Your task to perform on an android device: snooze an email in the gmail app Image 0: 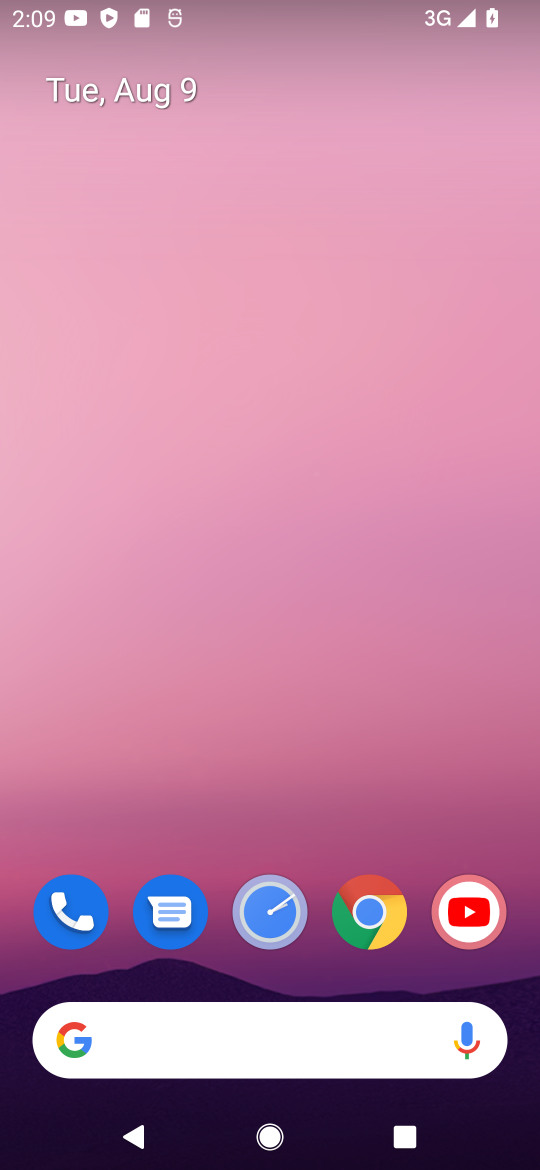
Step 0: drag from (324, 782) to (196, 130)
Your task to perform on an android device: snooze an email in the gmail app Image 1: 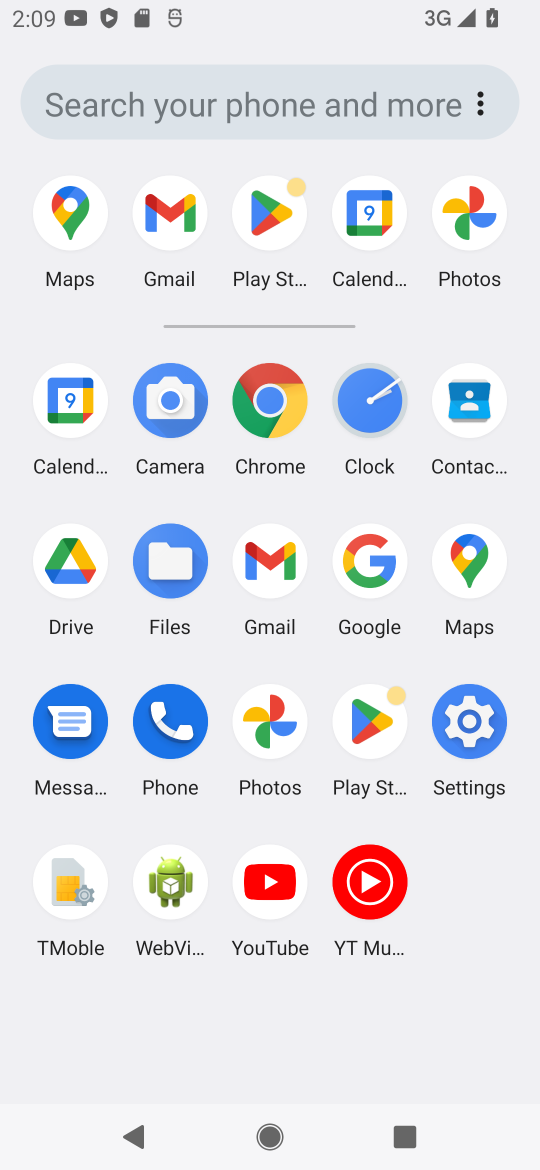
Step 1: click (270, 560)
Your task to perform on an android device: snooze an email in the gmail app Image 2: 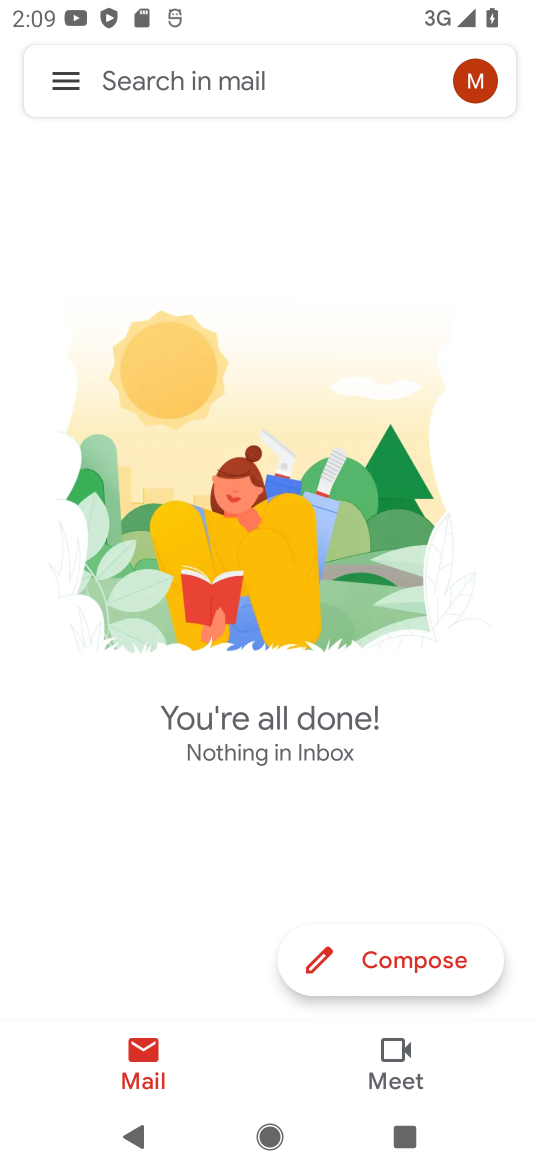
Step 2: click (63, 69)
Your task to perform on an android device: snooze an email in the gmail app Image 3: 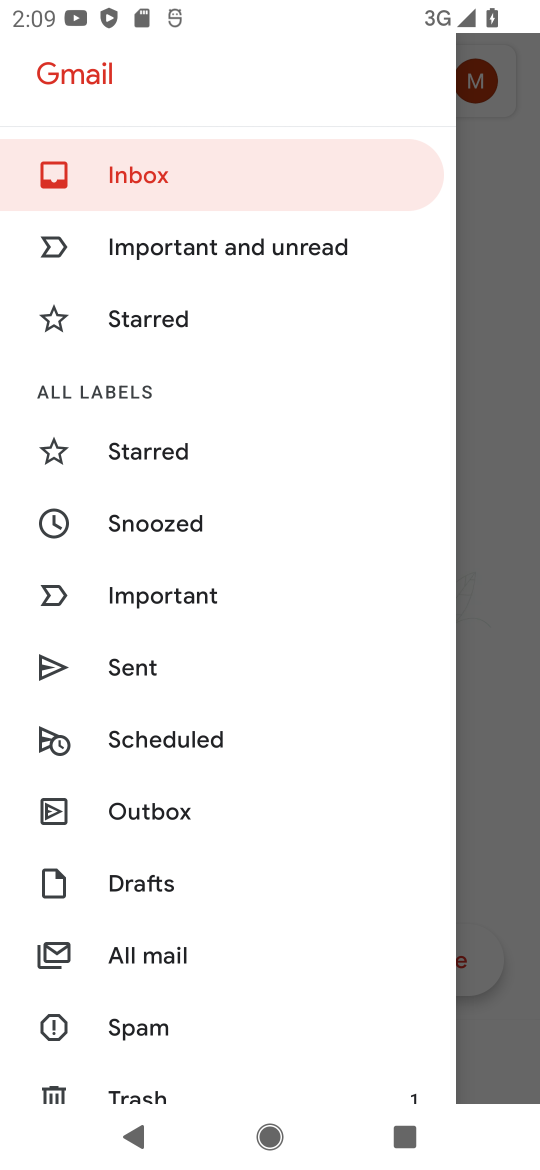
Step 3: drag from (243, 885) to (194, 401)
Your task to perform on an android device: snooze an email in the gmail app Image 4: 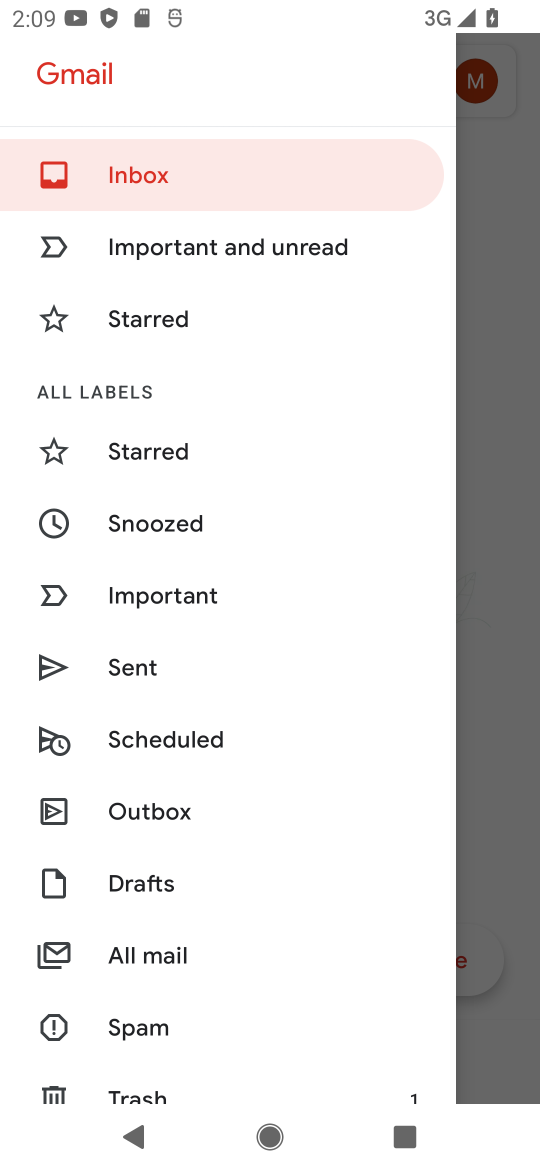
Step 4: drag from (238, 938) to (225, 489)
Your task to perform on an android device: snooze an email in the gmail app Image 5: 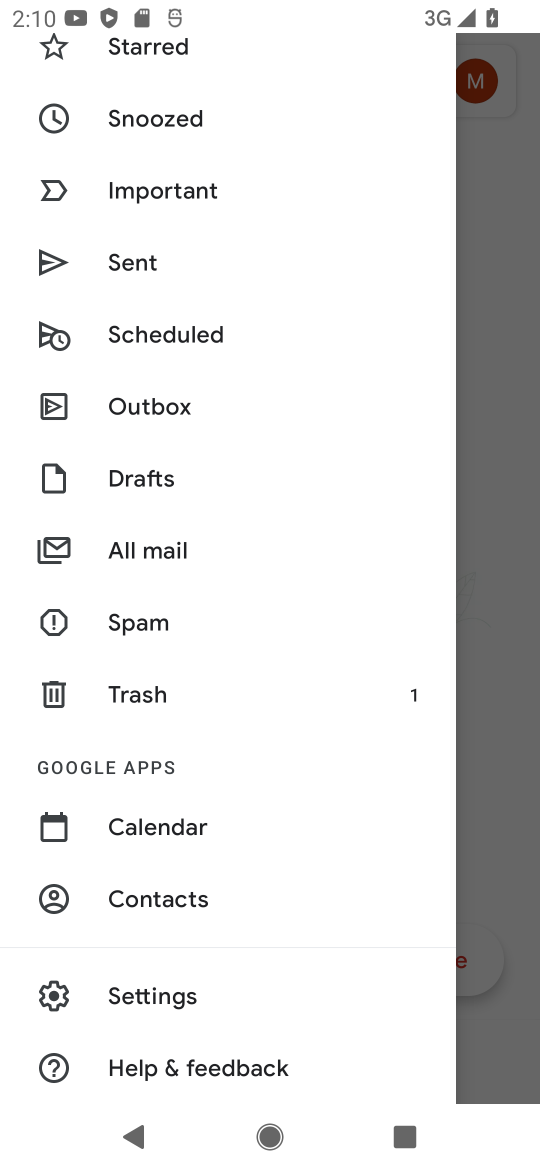
Step 5: click (150, 112)
Your task to perform on an android device: snooze an email in the gmail app Image 6: 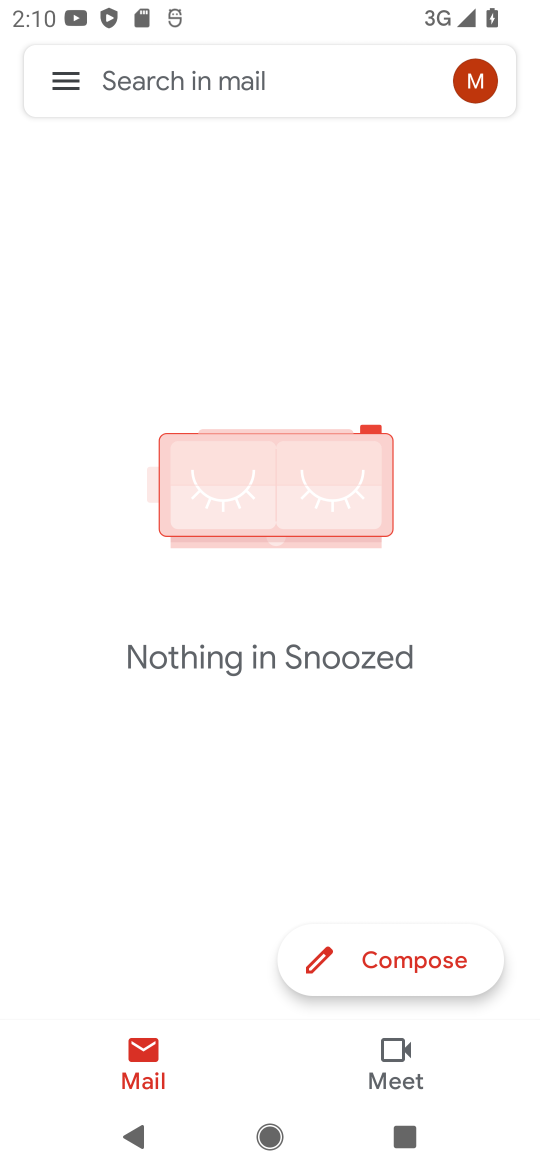
Step 6: click (55, 80)
Your task to perform on an android device: snooze an email in the gmail app Image 7: 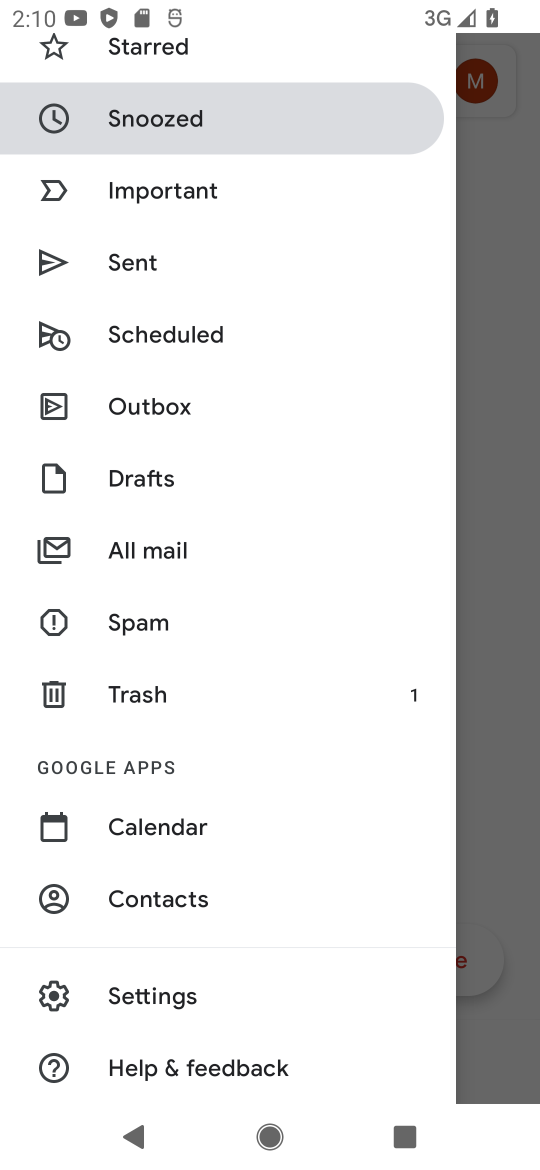
Step 7: click (143, 550)
Your task to perform on an android device: snooze an email in the gmail app Image 8: 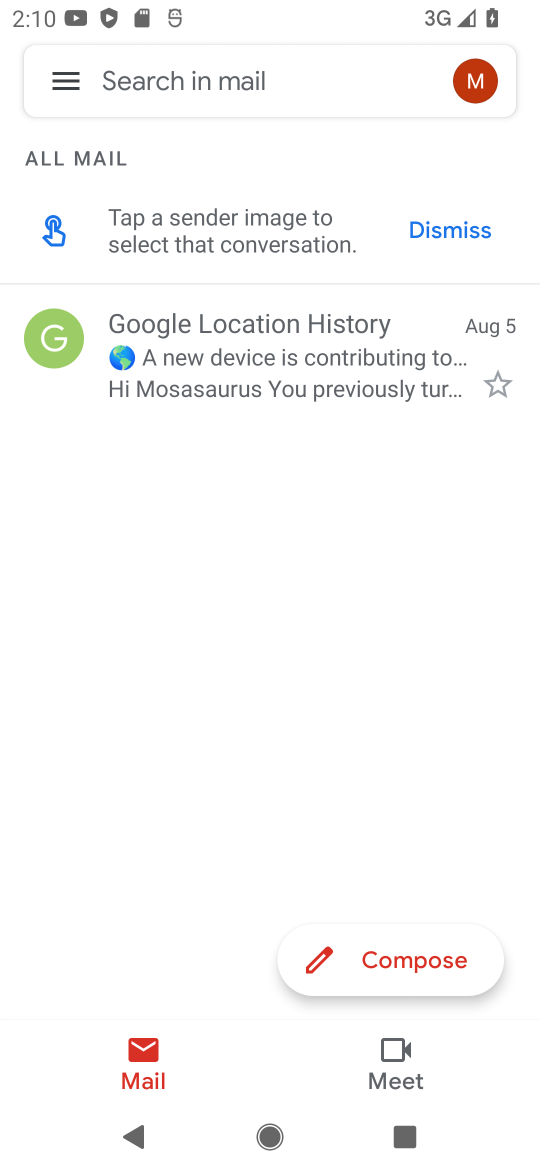
Step 8: click (260, 314)
Your task to perform on an android device: snooze an email in the gmail app Image 9: 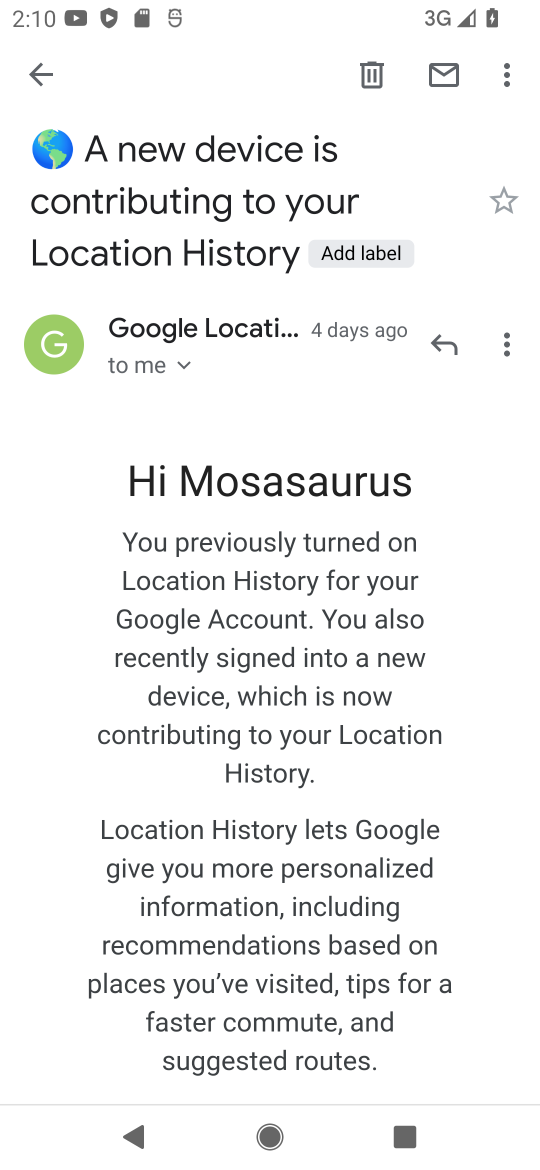
Step 9: click (506, 71)
Your task to perform on an android device: snooze an email in the gmail app Image 10: 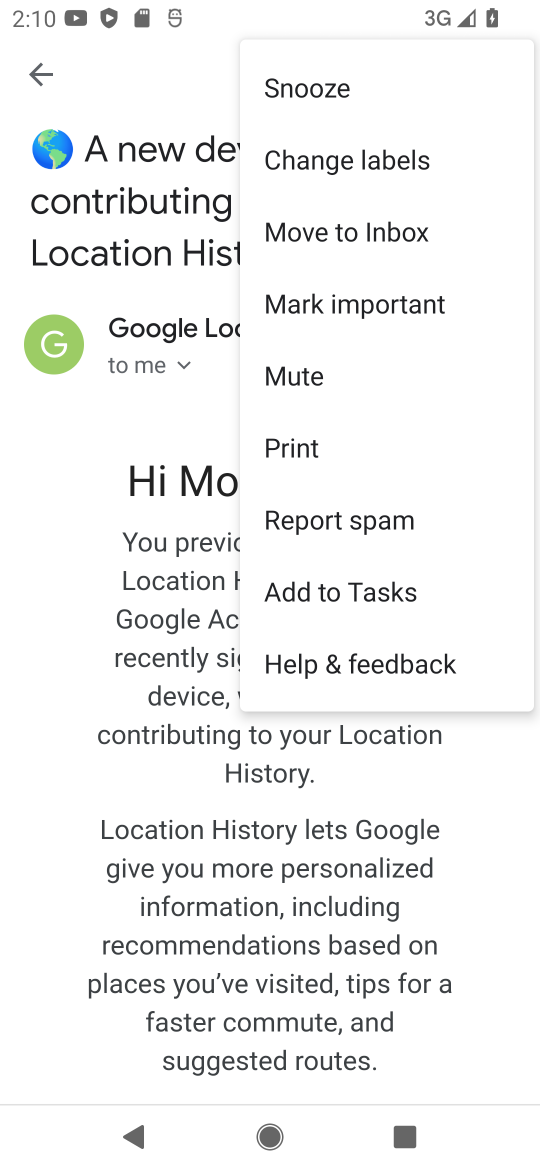
Step 10: click (332, 83)
Your task to perform on an android device: snooze an email in the gmail app Image 11: 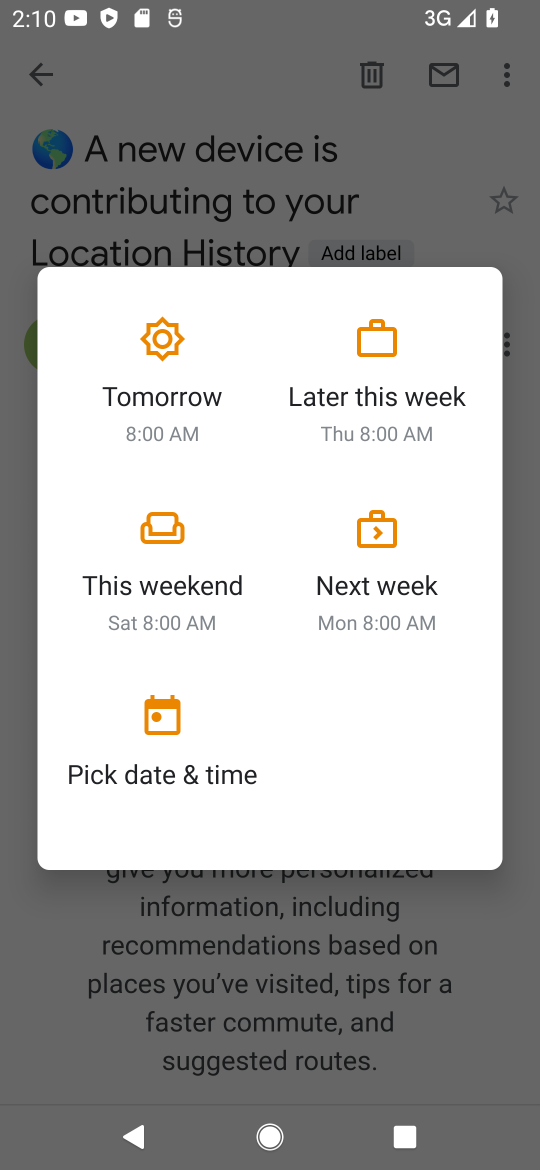
Step 11: click (151, 388)
Your task to perform on an android device: snooze an email in the gmail app Image 12: 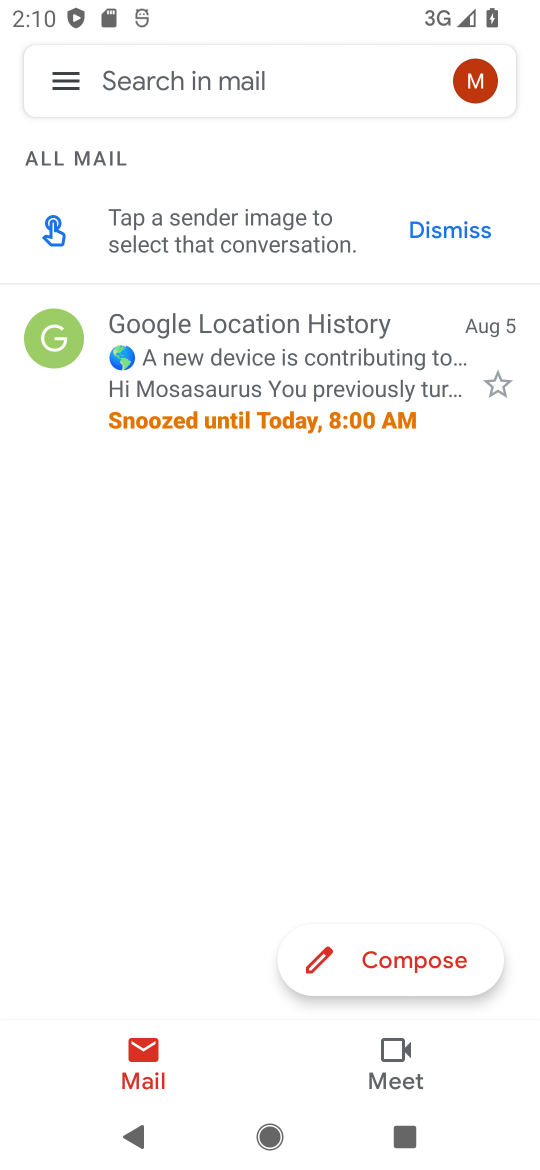
Step 12: task complete